Your task to perform on an android device: Empty the shopping cart on bestbuy. Add beats solo 3 to the cart on bestbuy Image 0: 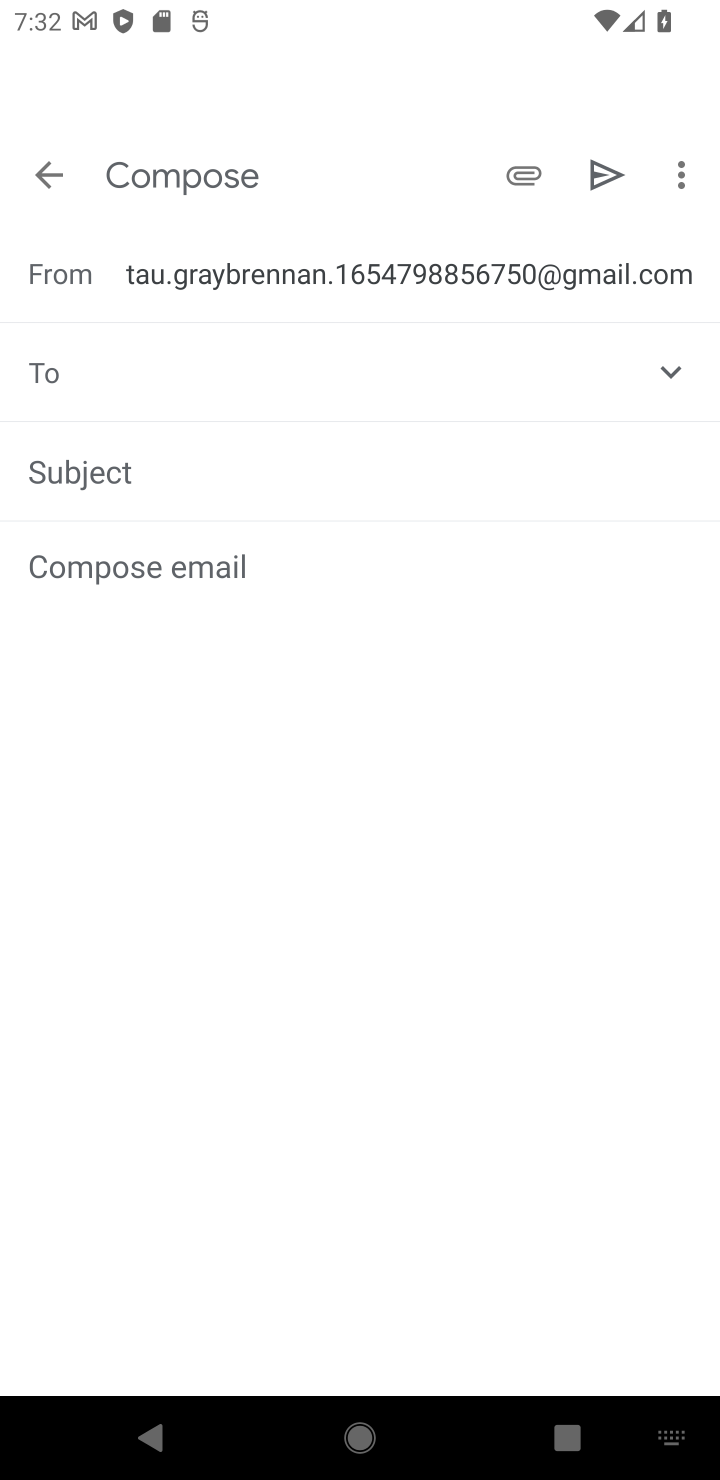
Step 0: press home button
Your task to perform on an android device: Empty the shopping cart on bestbuy. Add beats solo 3 to the cart on bestbuy Image 1: 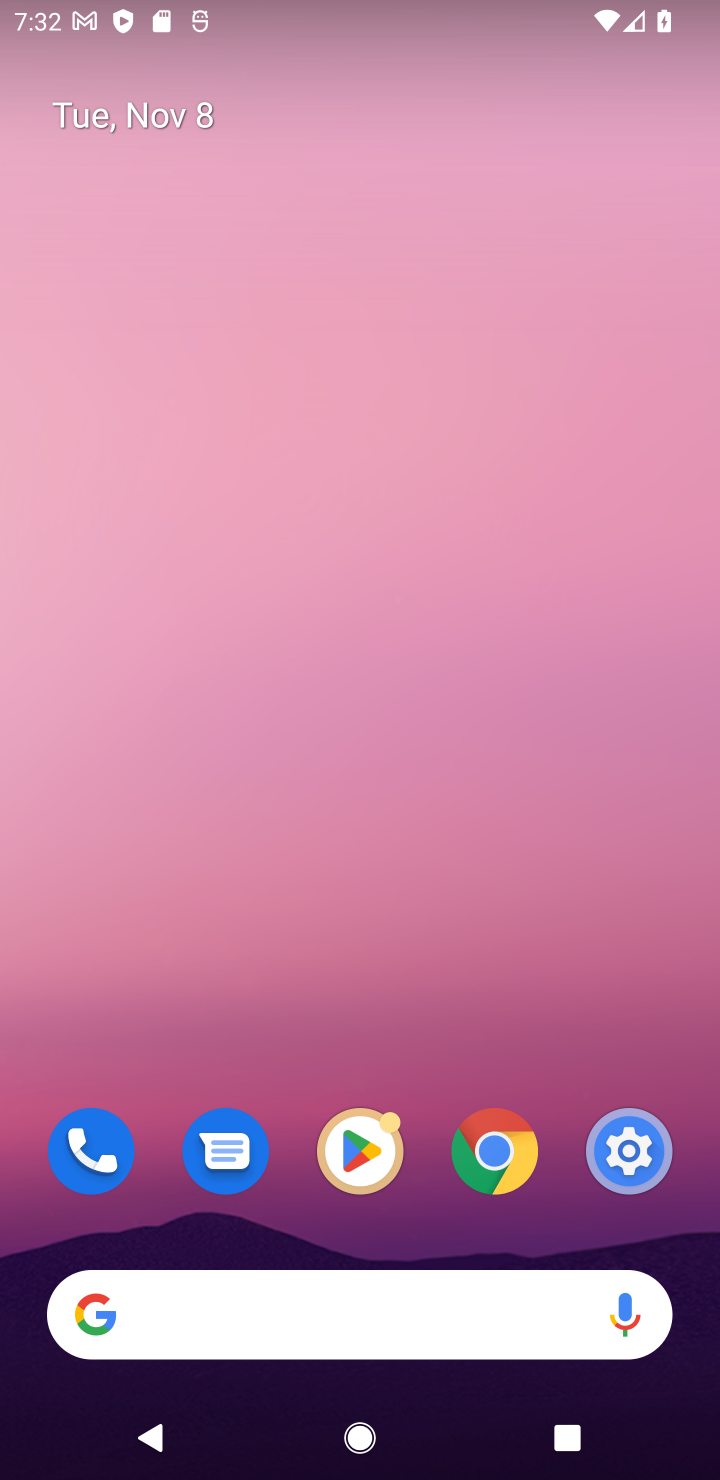
Step 1: click (249, 1318)
Your task to perform on an android device: Empty the shopping cart on bestbuy. Add beats solo 3 to the cart on bestbuy Image 2: 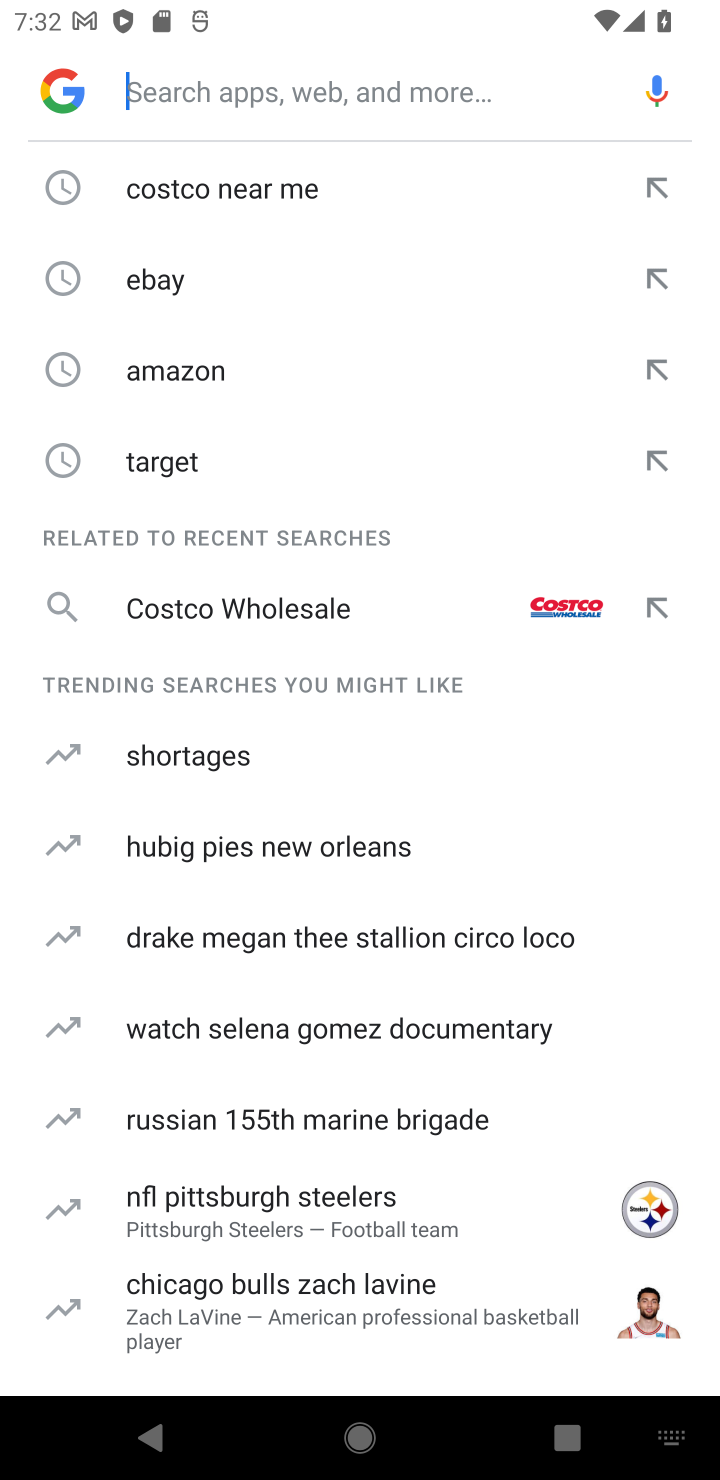
Step 2: type "best buy"
Your task to perform on an android device: Empty the shopping cart on bestbuy. Add beats solo 3 to the cart on bestbuy Image 3: 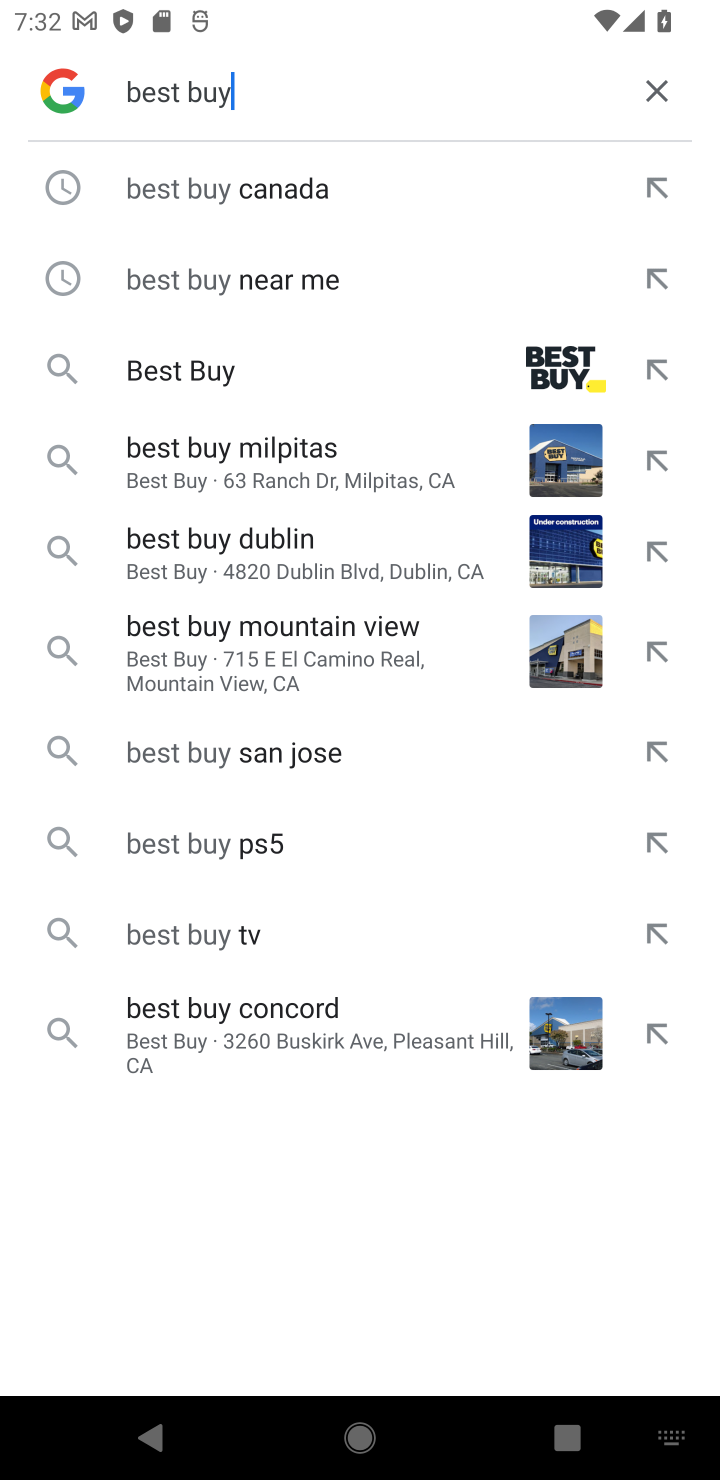
Step 3: click (196, 286)
Your task to perform on an android device: Empty the shopping cart on bestbuy. Add beats solo 3 to the cart on bestbuy Image 4: 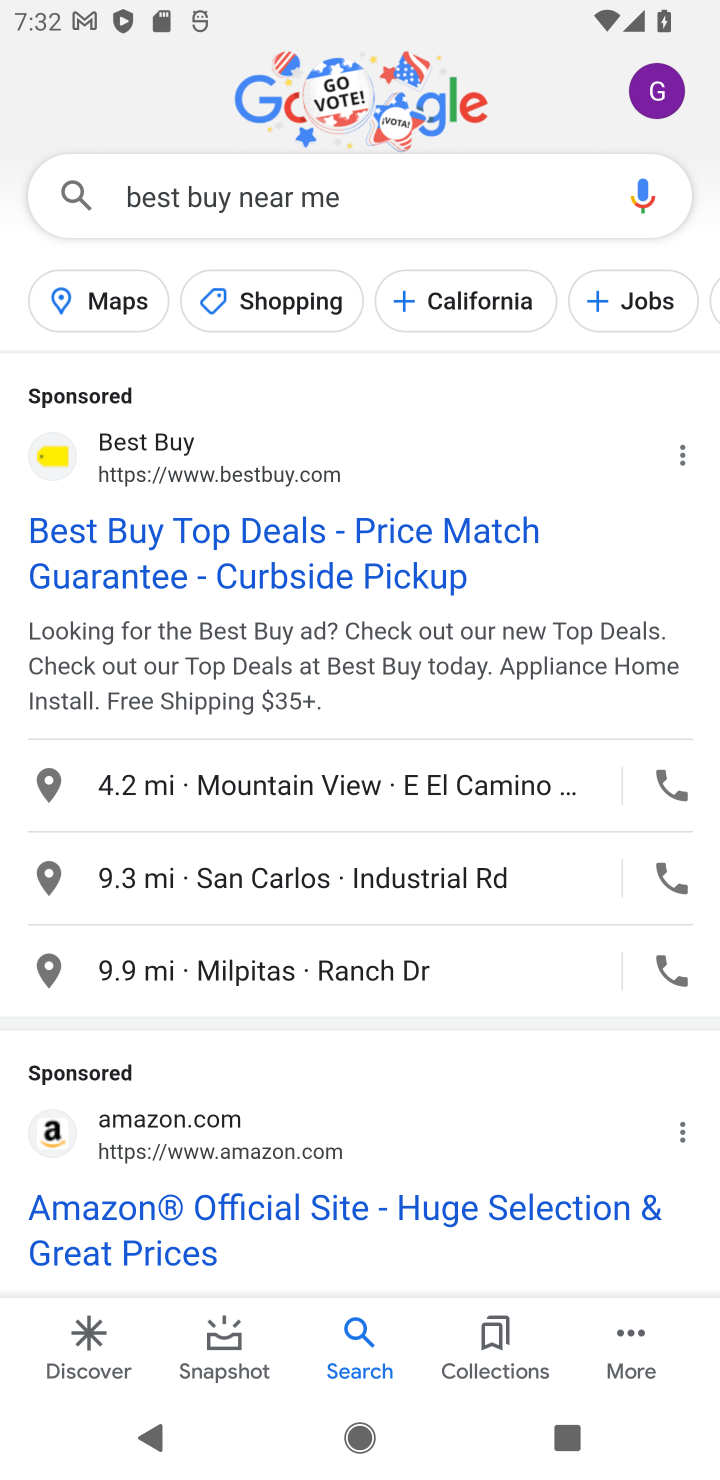
Step 4: click (319, 545)
Your task to perform on an android device: Empty the shopping cart on bestbuy. Add beats solo 3 to the cart on bestbuy Image 5: 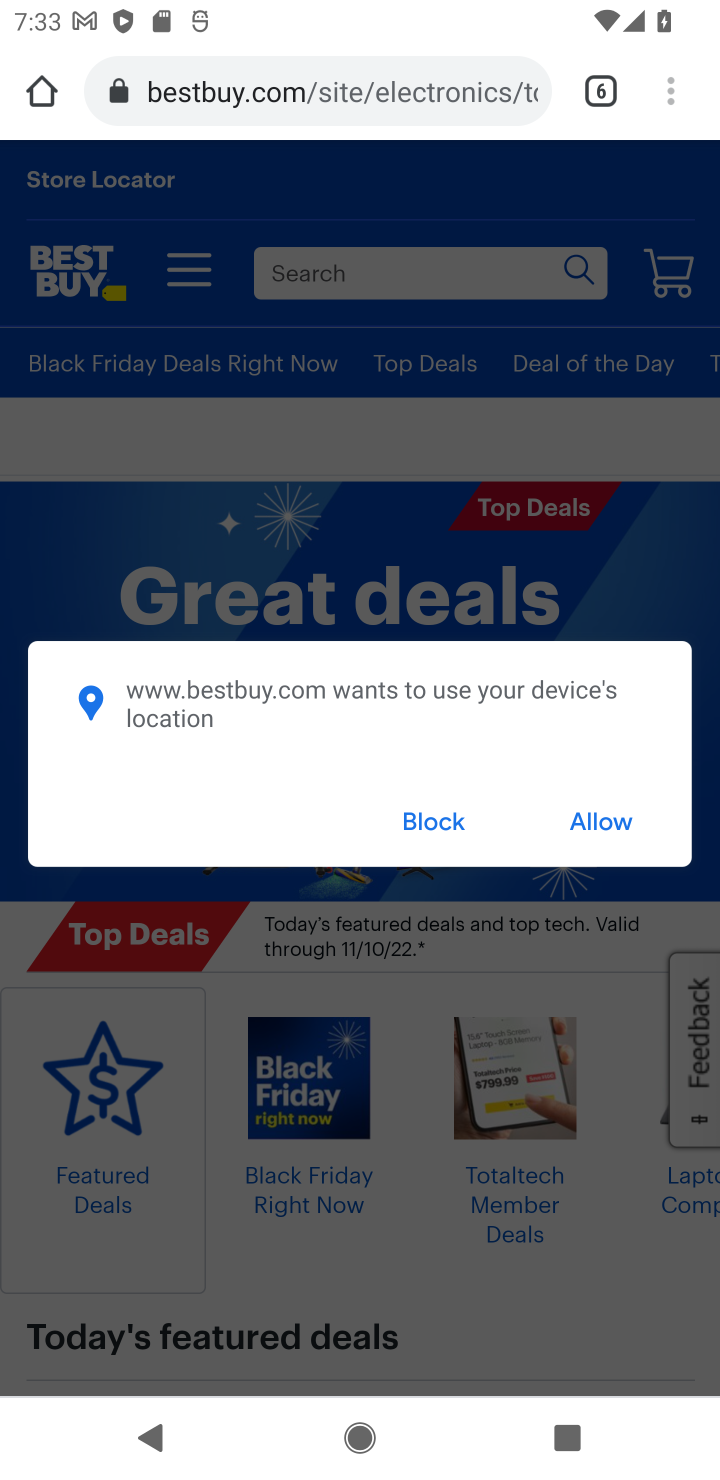
Step 5: task complete